Your task to perform on an android device: visit the assistant section in the google photos Image 0: 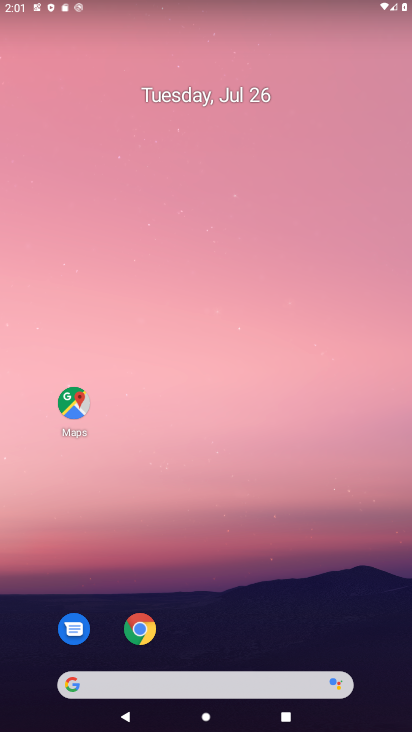
Step 0: drag from (231, 629) to (165, 151)
Your task to perform on an android device: visit the assistant section in the google photos Image 1: 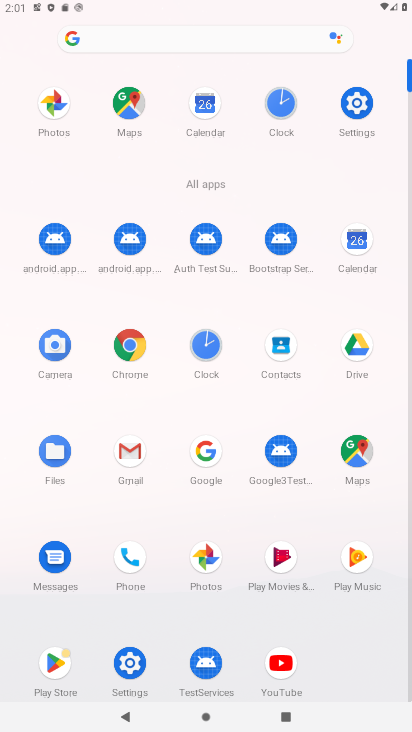
Step 1: click (195, 570)
Your task to perform on an android device: visit the assistant section in the google photos Image 2: 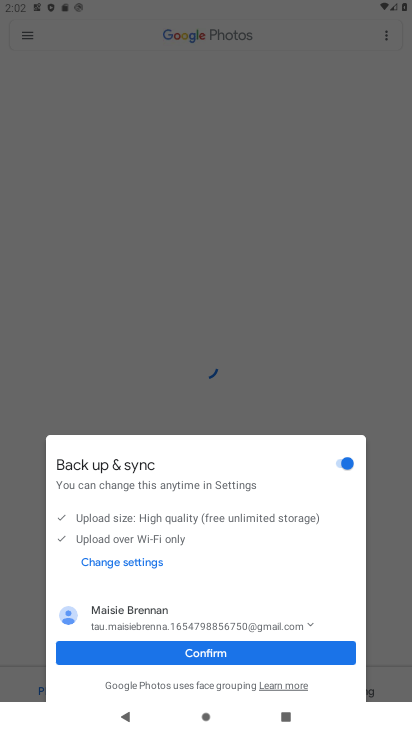
Step 2: click (223, 649)
Your task to perform on an android device: visit the assistant section in the google photos Image 3: 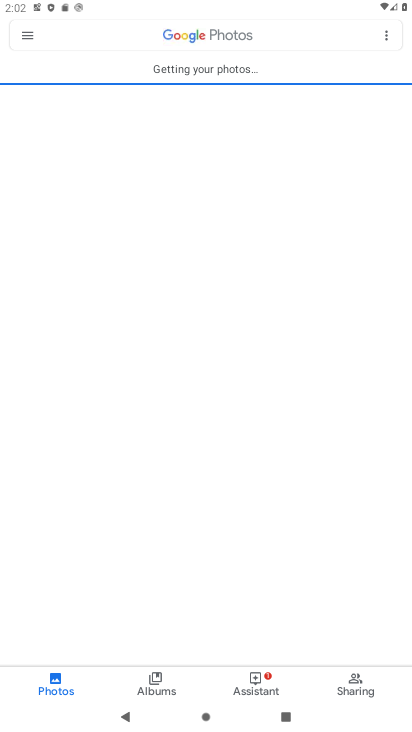
Step 3: click (273, 673)
Your task to perform on an android device: visit the assistant section in the google photos Image 4: 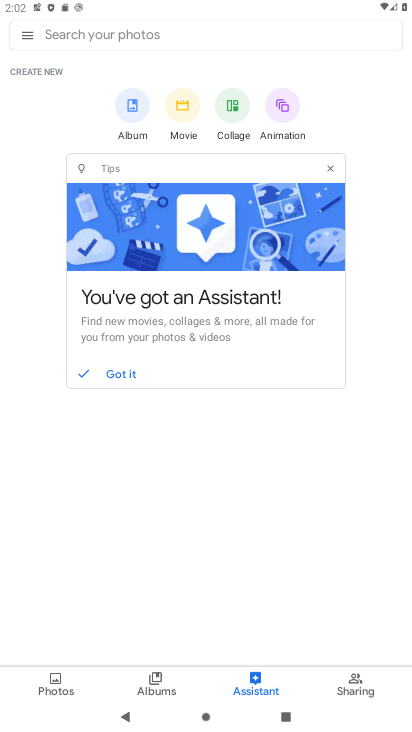
Step 4: task complete